Your task to perform on an android device: Go to CNN.com Image 0: 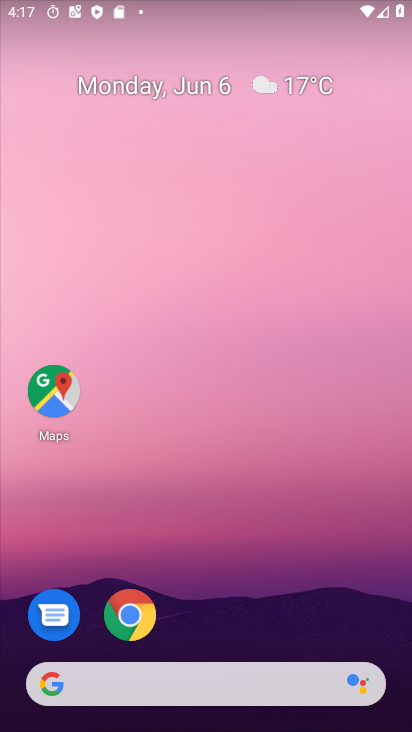
Step 0: drag from (332, 633) to (319, 14)
Your task to perform on an android device: Go to CNN.com Image 1: 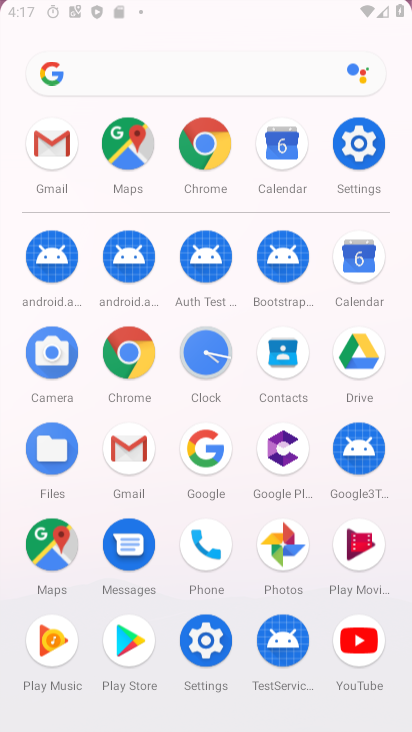
Step 1: click (142, 349)
Your task to perform on an android device: Go to CNN.com Image 2: 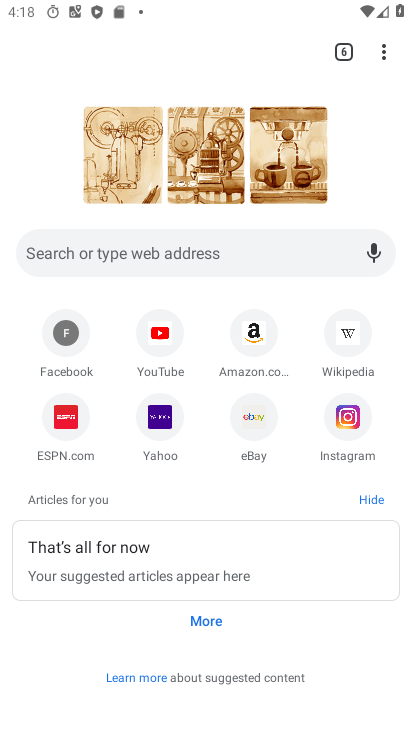
Step 2: click (191, 251)
Your task to perform on an android device: Go to CNN.com Image 3: 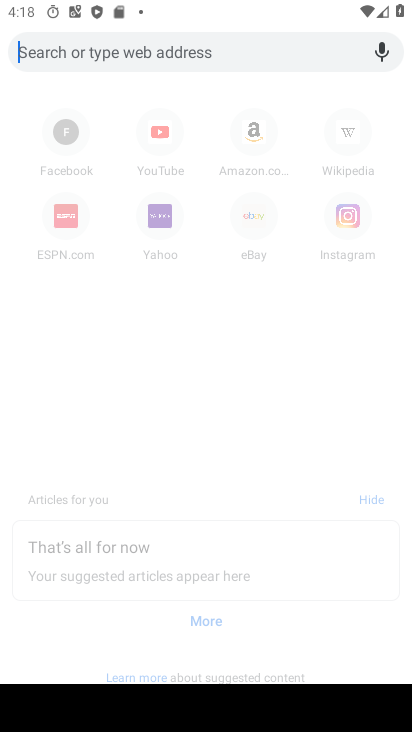
Step 3: type "cnn.com"
Your task to perform on an android device: Go to CNN.com Image 4: 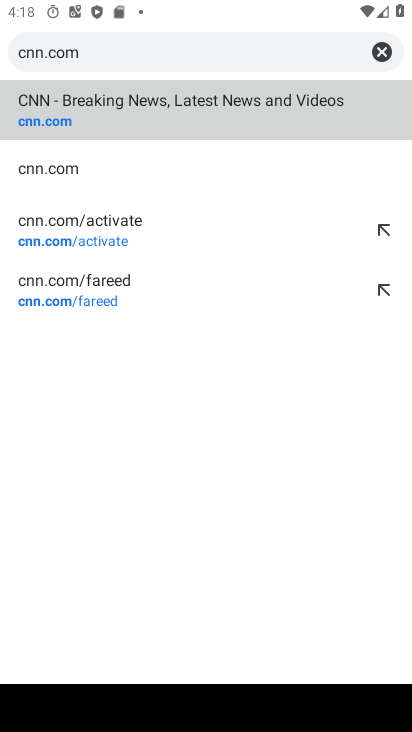
Step 4: click (156, 117)
Your task to perform on an android device: Go to CNN.com Image 5: 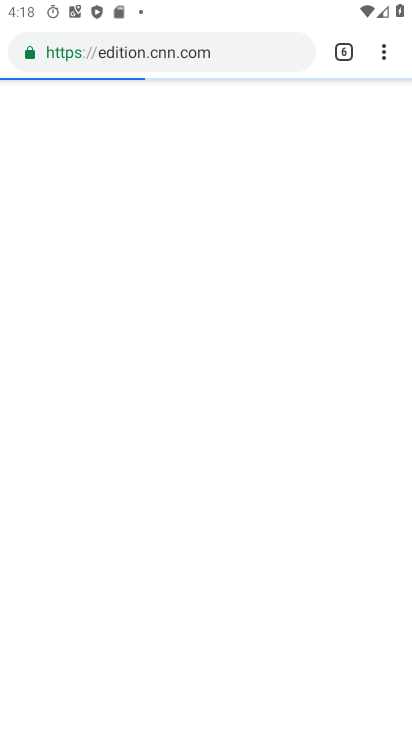
Step 5: task complete